Your task to perform on an android device: turn off smart reply in the gmail app Image 0: 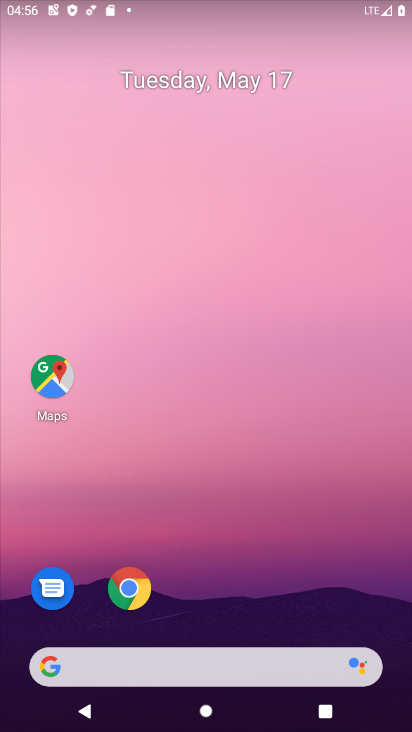
Step 0: drag from (255, 603) to (205, 216)
Your task to perform on an android device: turn off smart reply in the gmail app Image 1: 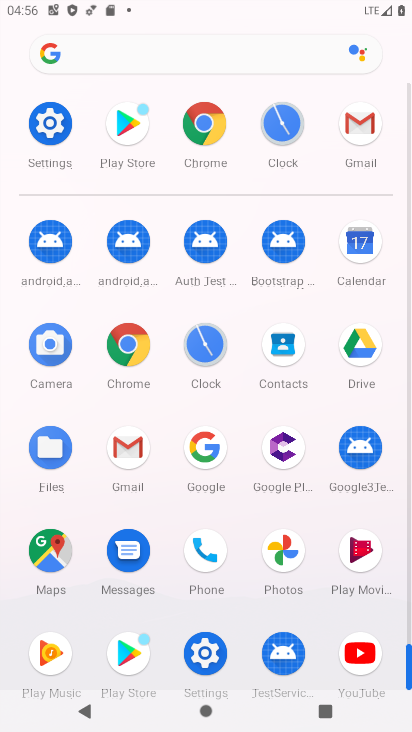
Step 1: click (360, 126)
Your task to perform on an android device: turn off smart reply in the gmail app Image 2: 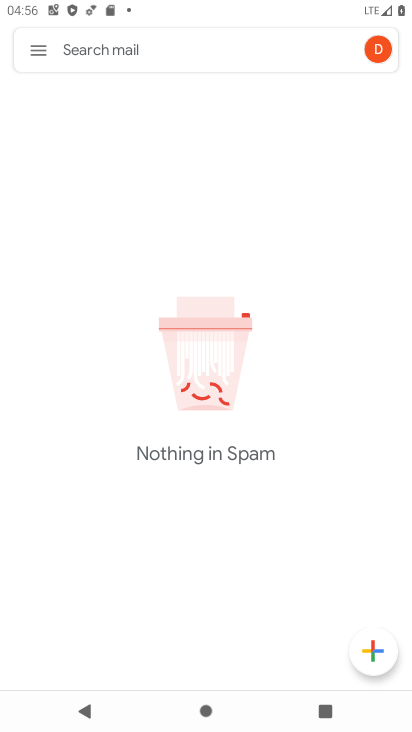
Step 2: click (38, 49)
Your task to perform on an android device: turn off smart reply in the gmail app Image 3: 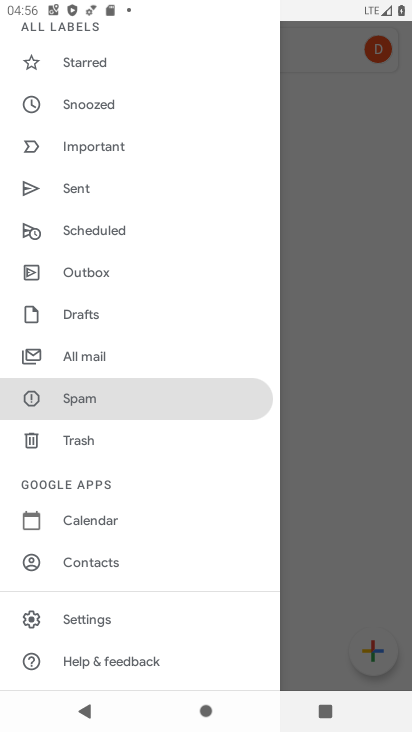
Step 3: click (102, 618)
Your task to perform on an android device: turn off smart reply in the gmail app Image 4: 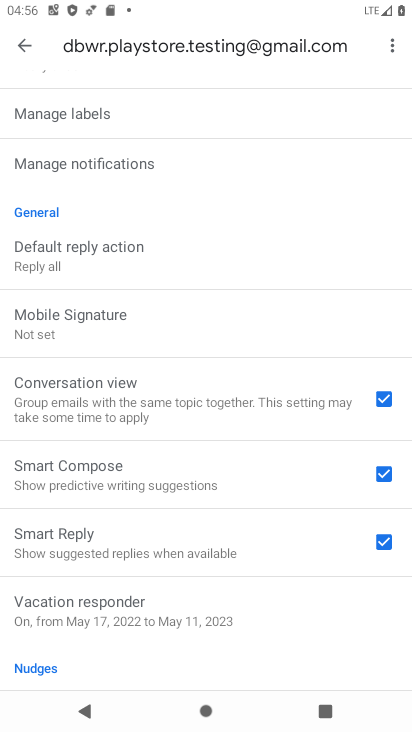
Step 4: click (378, 546)
Your task to perform on an android device: turn off smart reply in the gmail app Image 5: 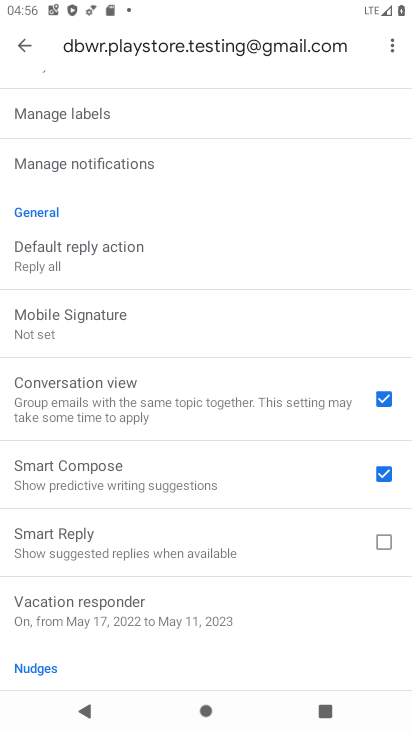
Step 5: task complete